Your task to perform on an android device: open device folders in google photos Image 0: 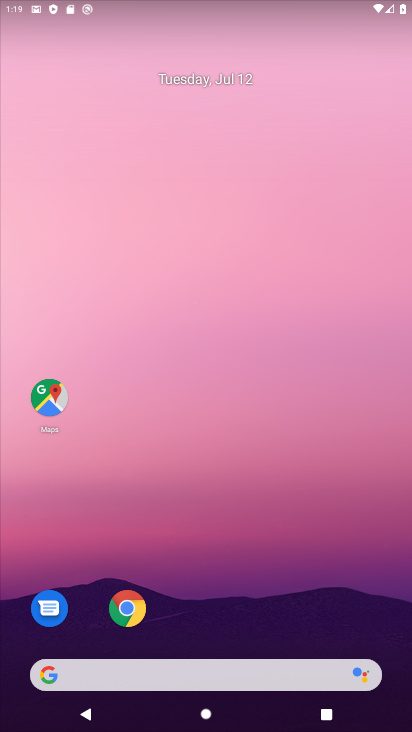
Step 0: drag from (348, 602) to (248, 118)
Your task to perform on an android device: open device folders in google photos Image 1: 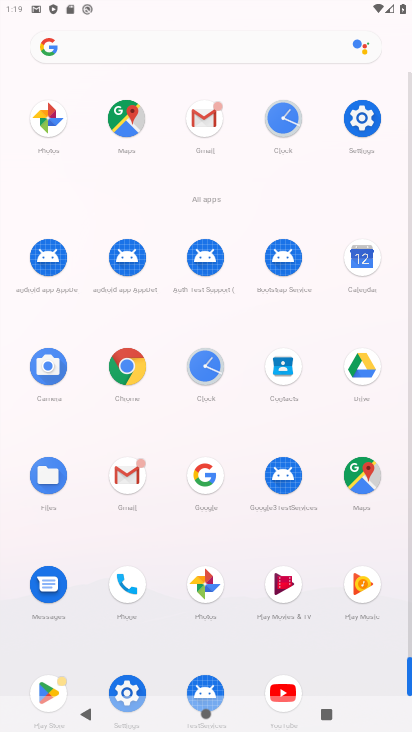
Step 1: click (38, 119)
Your task to perform on an android device: open device folders in google photos Image 2: 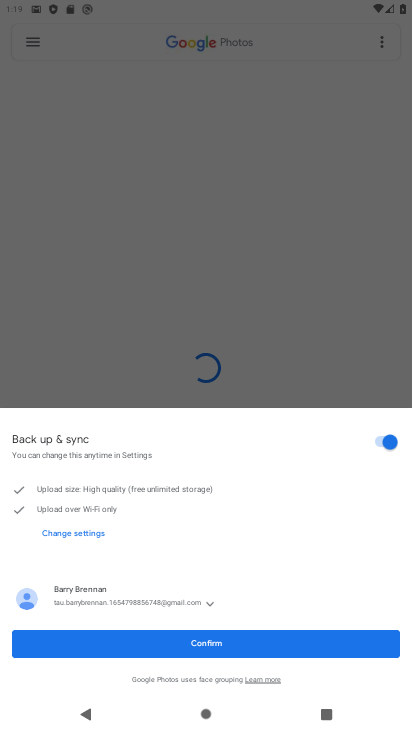
Step 2: click (228, 645)
Your task to perform on an android device: open device folders in google photos Image 3: 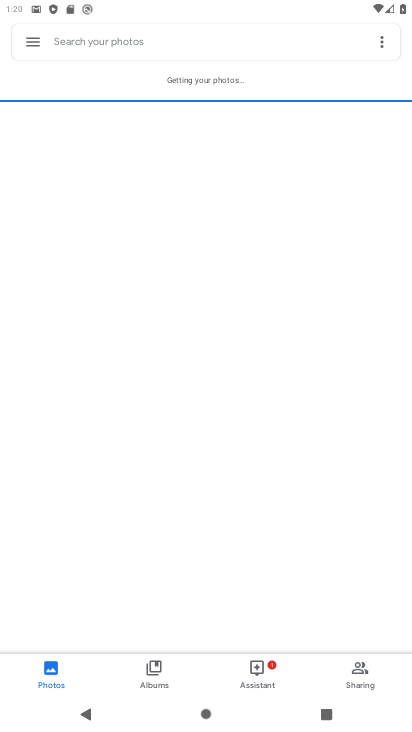
Step 3: click (218, 643)
Your task to perform on an android device: open device folders in google photos Image 4: 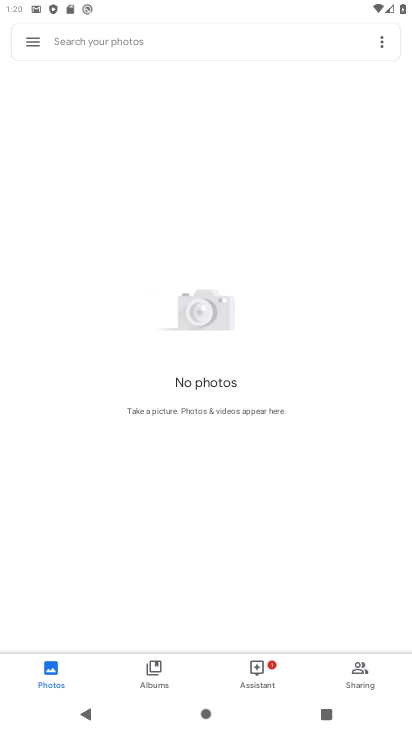
Step 4: click (33, 44)
Your task to perform on an android device: open device folders in google photos Image 5: 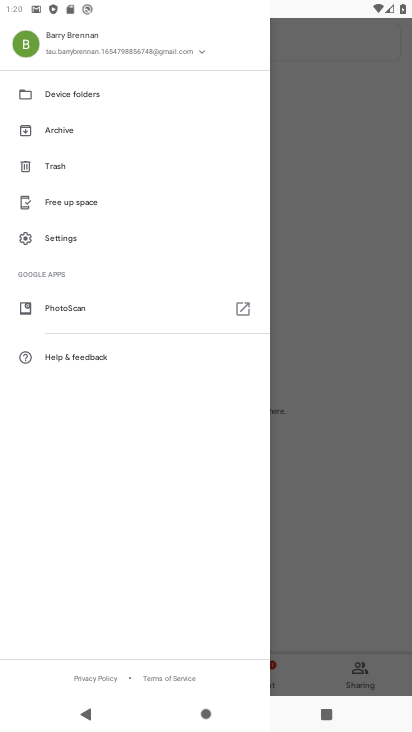
Step 5: click (75, 91)
Your task to perform on an android device: open device folders in google photos Image 6: 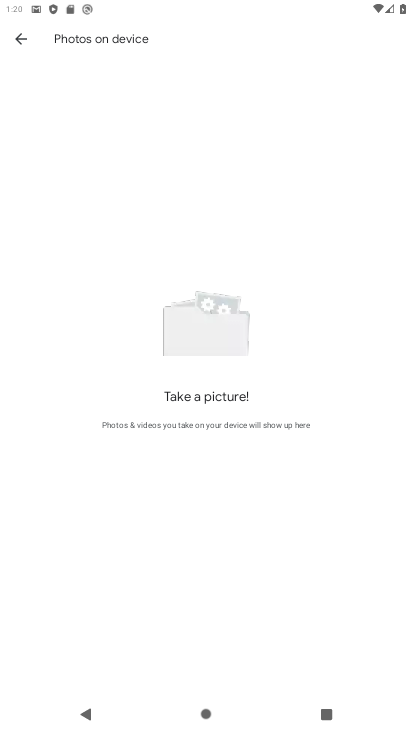
Step 6: task complete